Your task to perform on an android device: Go to accessibility settings Image 0: 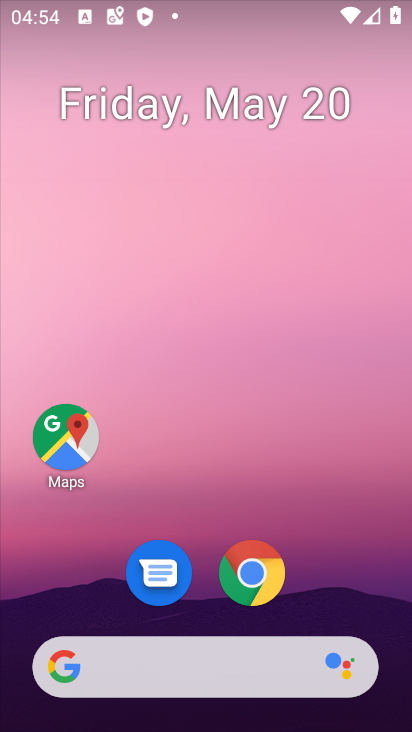
Step 0: drag from (391, 632) to (353, 72)
Your task to perform on an android device: Go to accessibility settings Image 1: 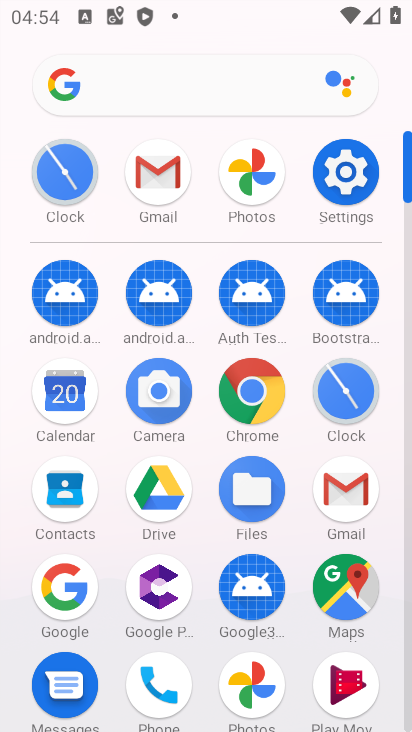
Step 1: click (412, 693)
Your task to perform on an android device: Go to accessibility settings Image 2: 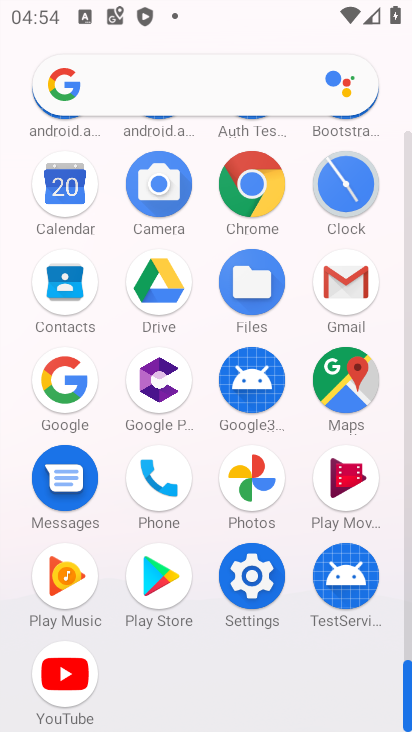
Step 2: click (251, 578)
Your task to perform on an android device: Go to accessibility settings Image 3: 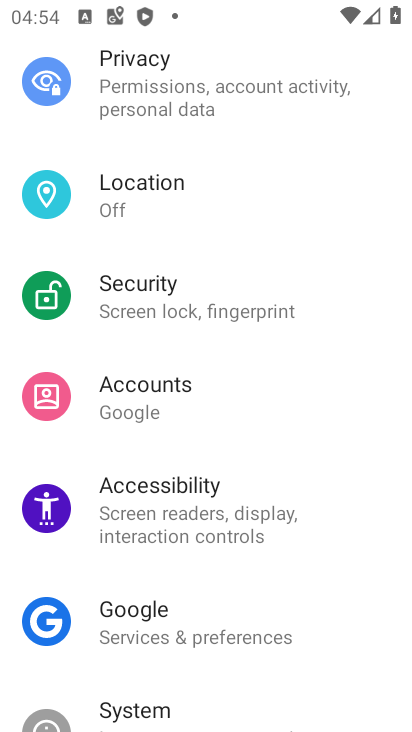
Step 3: click (174, 494)
Your task to perform on an android device: Go to accessibility settings Image 4: 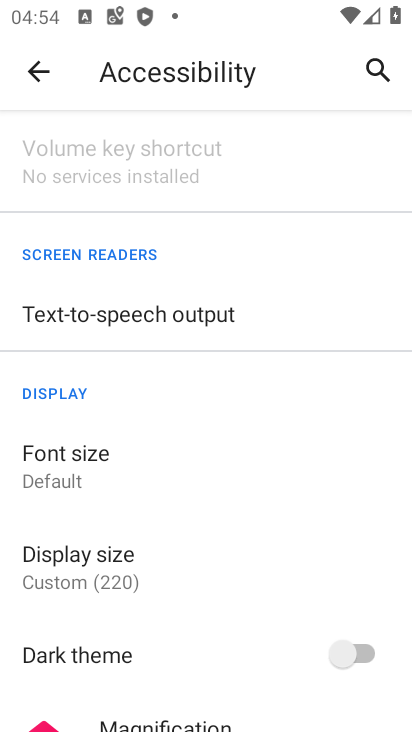
Step 4: task complete